Your task to perform on an android device: Go to Wikipedia Image 0: 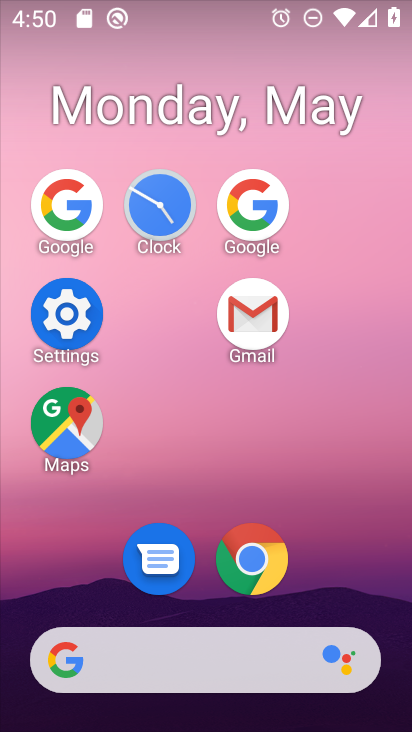
Step 0: click (269, 569)
Your task to perform on an android device: Go to Wikipedia Image 1: 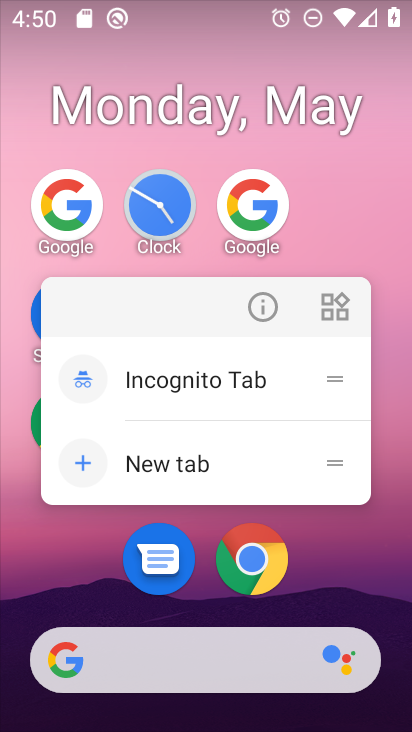
Step 1: click (246, 559)
Your task to perform on an android device: Go to Wikipedia Image 2: 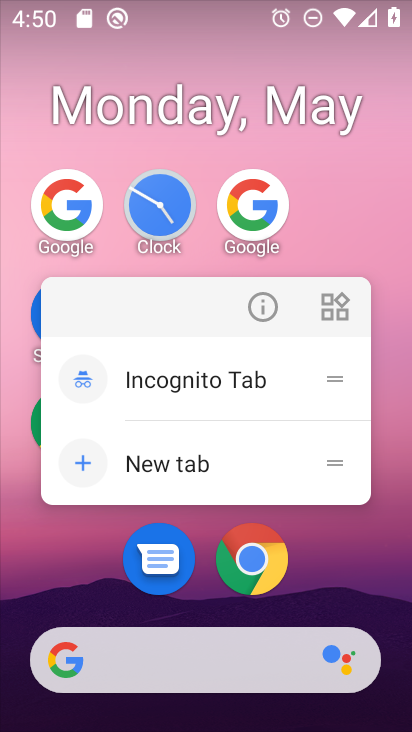
Step 2: click (234, 550)
Your task to perform on an android device: Go to Wikipedia Image 3: 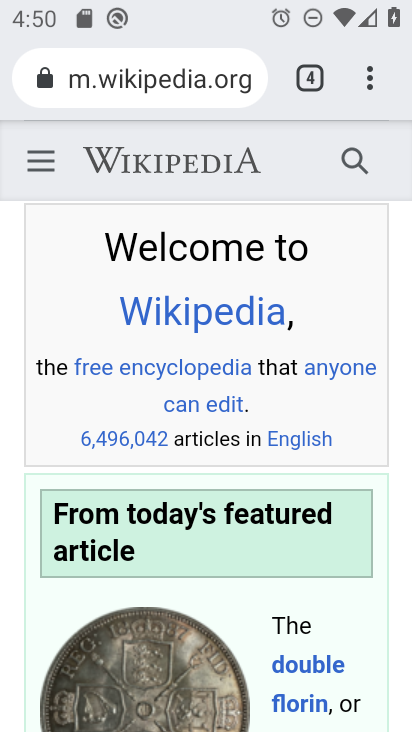
Step 3: task complete